Your task to perform on an android device: What is the recent news? Image 0: 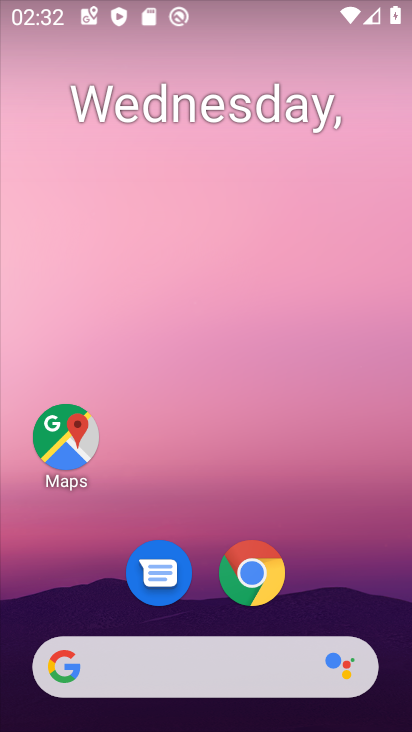
Step 0: drag from (326, 552) to (199, 12)
Your task to perform on an android device: What is the recent news? Image 1: 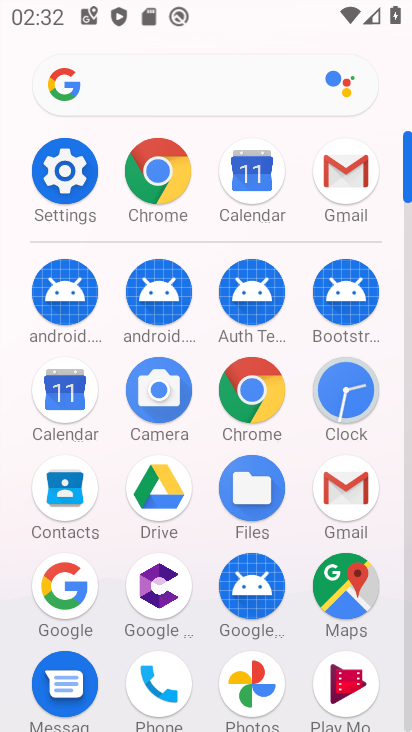
Step 1: click (57, 586)
Your task to perform on an android device: What is the recent news? Image 2: 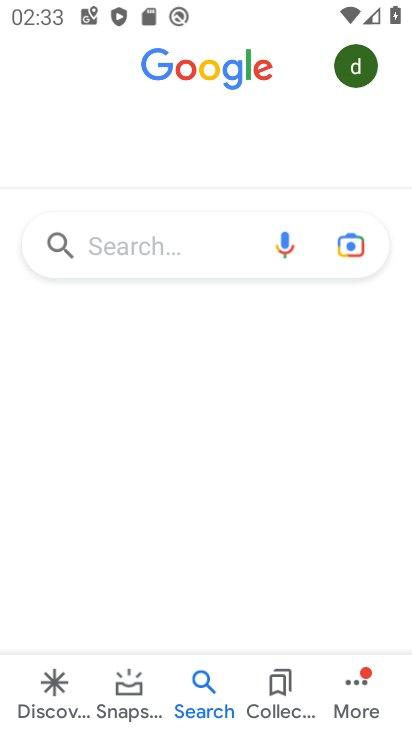
Step 2: click (136, 239)
Your task to perform on an android device: What is the recent news? Image 3: 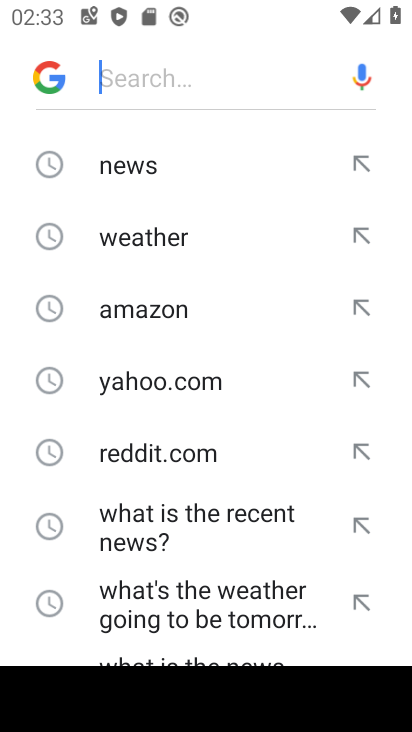
Step 3: type "recent news"
Your task to perform on an android device: What is the recent news? Image 4: 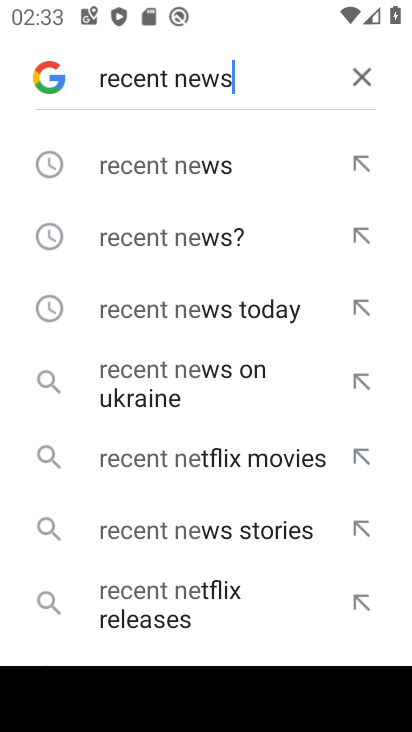
Step 4: type ""
Your task to perform on an android device: What is the recent news? Image 5: 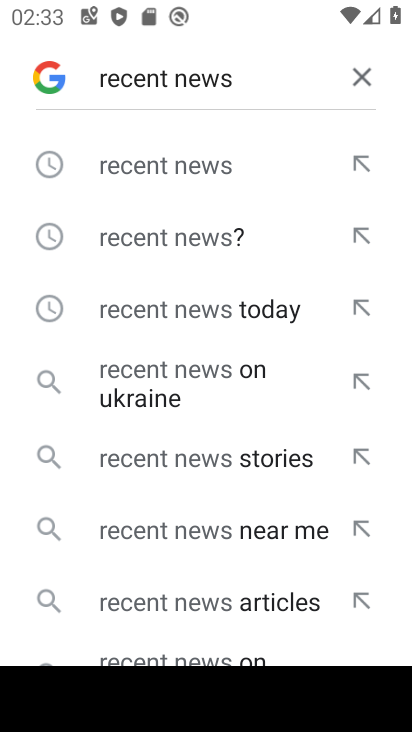
Step 5: click (178, 164)
Your task to perform on an android device: What is the recent news? Image 6: 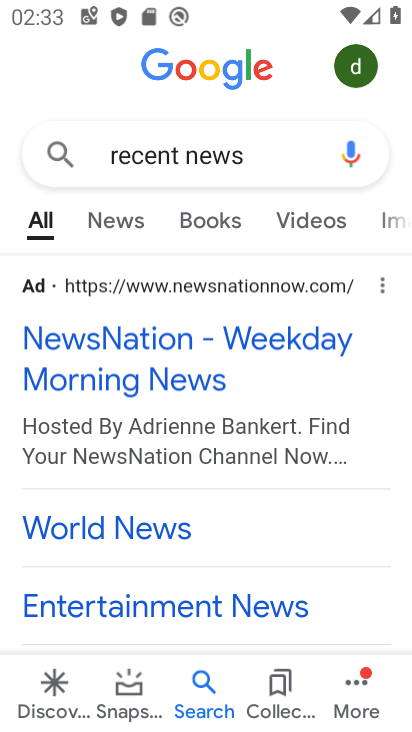
Step 6: task complete